Your task to perform on an android device: Is it going to rain tomorrow? Image 0: 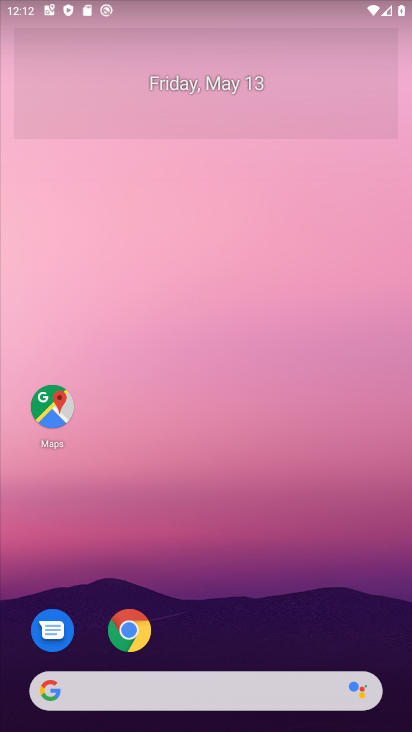
Step 0: click (235, 482)
Your task to perform on an android device: Is it going to rain tomorrow? Image 1: 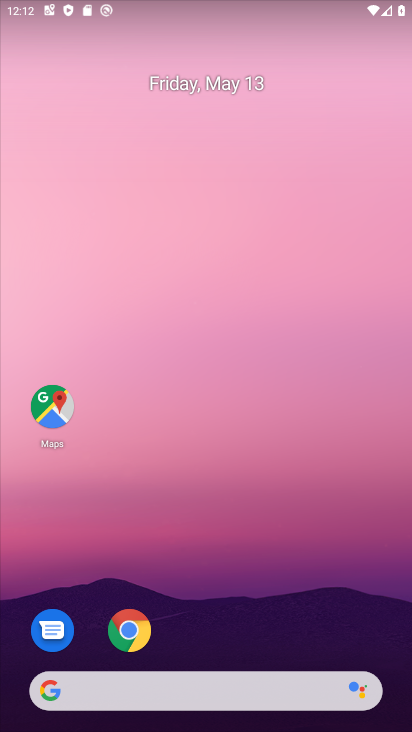
Step 1: drag from (353, 613) to (319, 176)
Your task to perform on an android device: Is it going to rain tomorrow? Image 2: 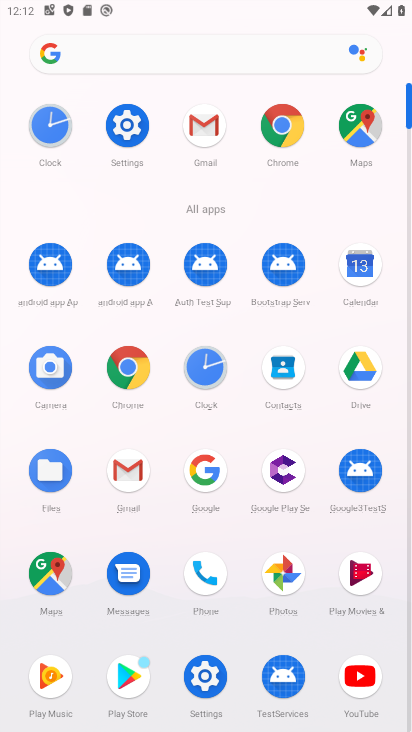
Step 2: click (134, 366)
Your task to perform on an android device: Is it going to rain tomorrow? Image 3: 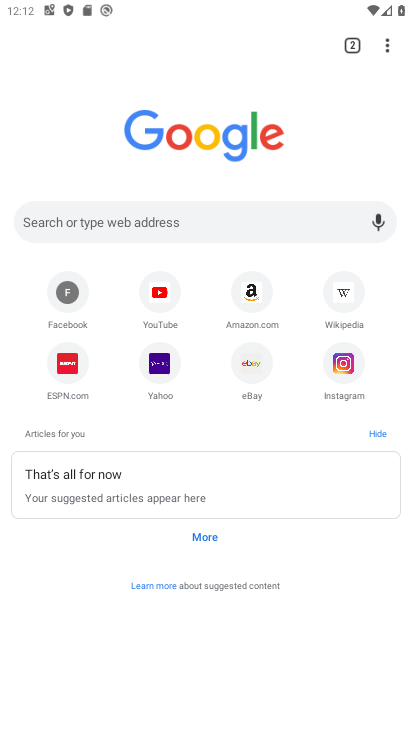
Step 3: click (175, 233)
Your task to perform on an android device: Is it going to rain tomorrow? Image 4: 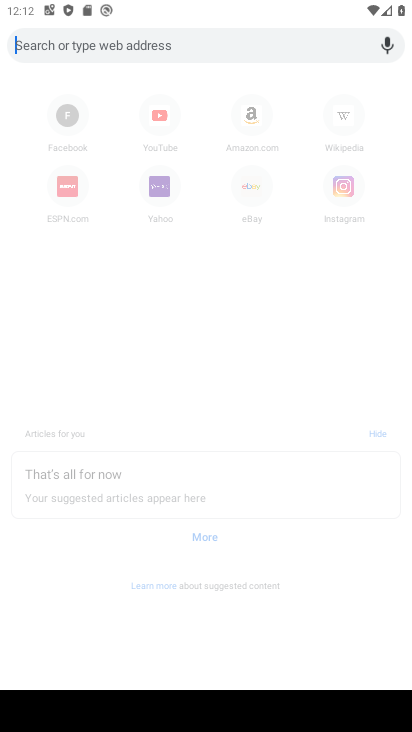
Step 4: type "is it going to rain tomorrow"
Your task to perform on an android device: Is it going to rain tomorrow? Image 5: 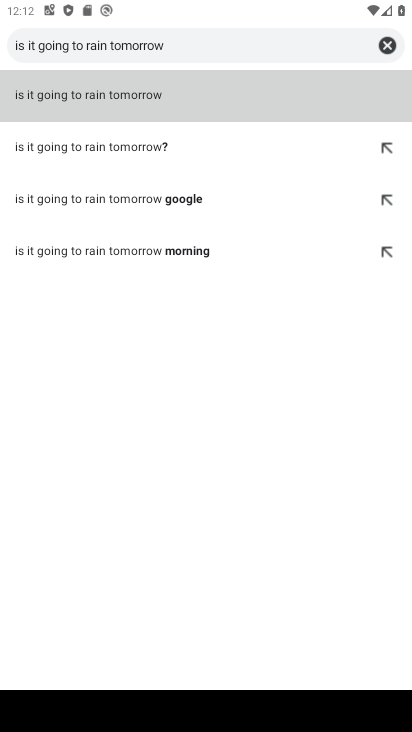
Step 5: click (126, 95)
Your task to perform on an android device: Is it going to rain tomorrow? Image 6: 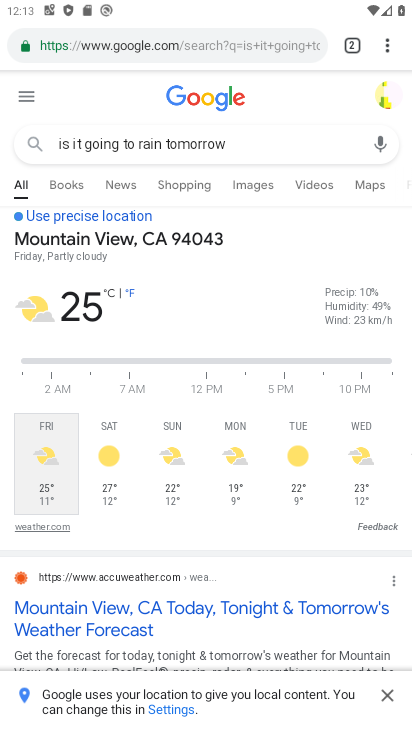
Step 6: task complete